Your task to perform on an android device: toggle priority inbox in the gmail app Image 0: 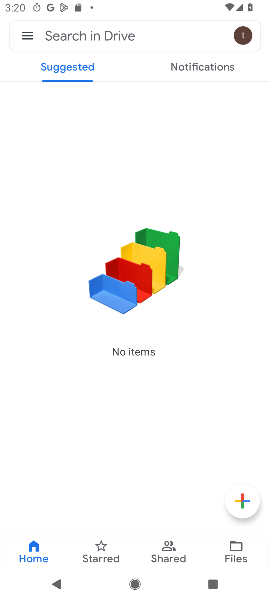
Step 0: press home button
Your task to perform on an android device: toggle priority inbox in the gmail app Image 1: 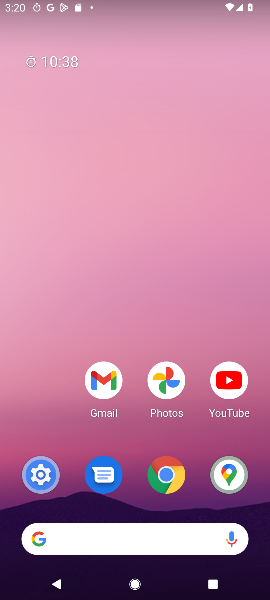
Step 1: drag from (60, 422) to (55, 211)
Your task to perform on an android device: toggle priority inbox in the gmail app Image 2: 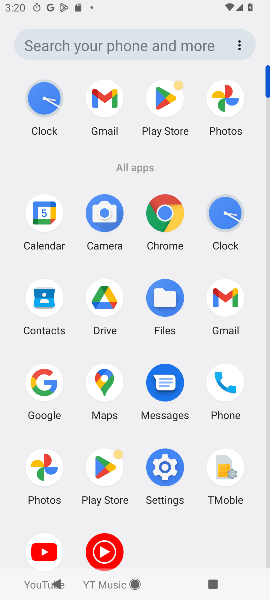
Step 2: click (227, 302)
Your task to perform on an android device: toggle priority inbox in the gmail app Image 3: 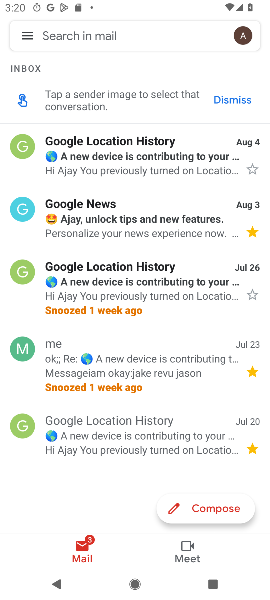
Step 3: click (24, 28)
Your task to perform on an android device: toggle priority inbox in the gmail app Image 4: 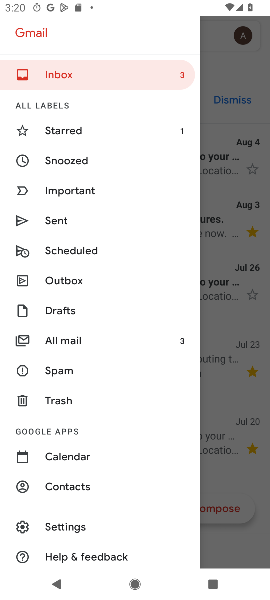
Step 4: click (85, 529)
Your task to perform on an android device: toggle priority inbox in the gmail app Image 5: 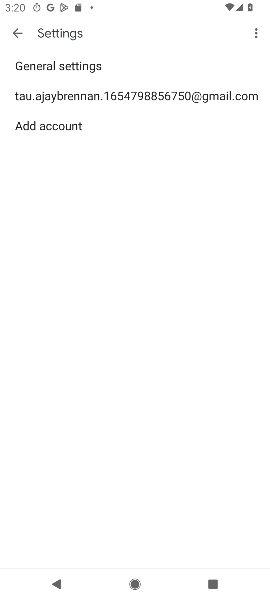
Step 5: click (148, 94)
Your task to perform on an android device: toggle priority inbox in the gmail app Image 6: 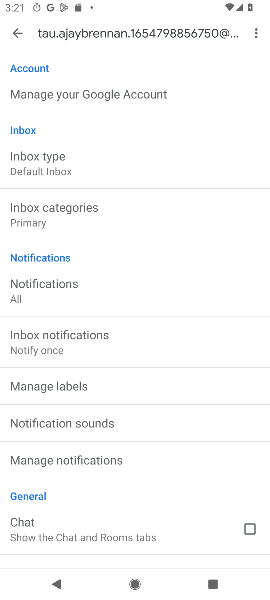
Step 6: click (77, 163)
Your task to perform on an android device: toggle priority inbox in the gmail app Image 7: 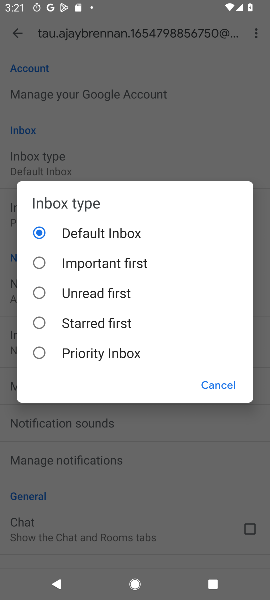
Step 7: click (81, 349)
Your task to perform on an android device: toggle priority inbox in the gmail app Image 8: 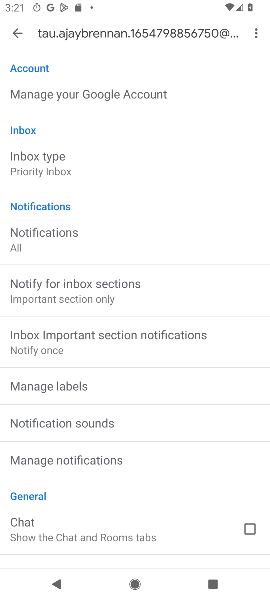
Step 8: task complete